Your task to perform on an android device: Go to notification settings Image 0: 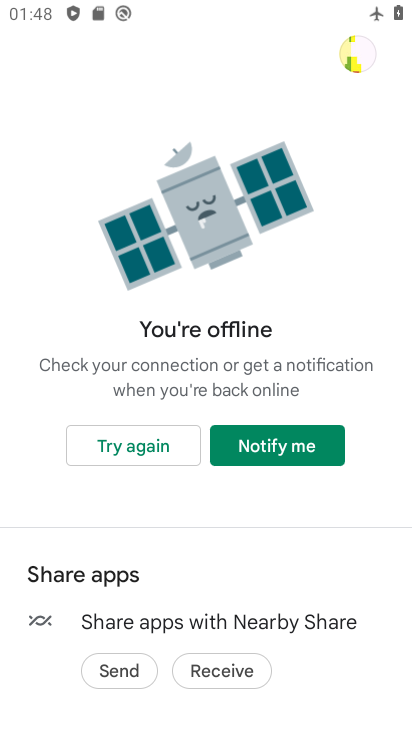
Step 0: press home button
Your task to perform on an android device: Go to notification settings Image 1: 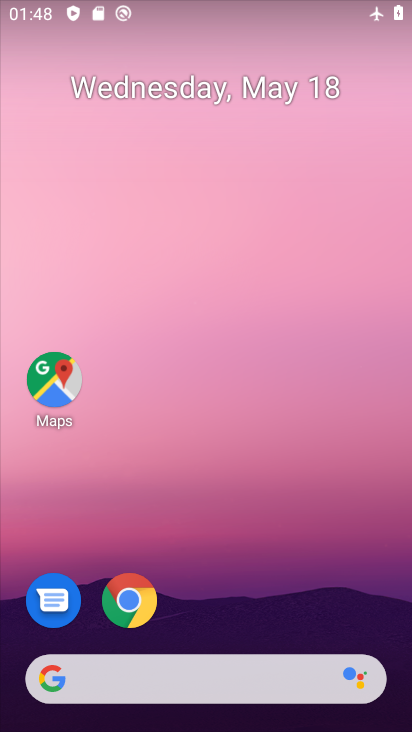
Step 1: drag from (173, 645) to (199, 124)
Your task to perform on an android device: Go to notification settings Image 2: 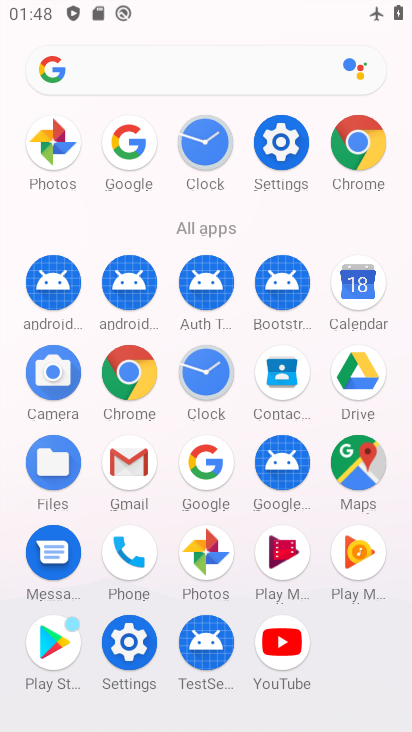
Step 2: click (266, 151)
Your task to perform on an android device: Go to notification settings Image 3: 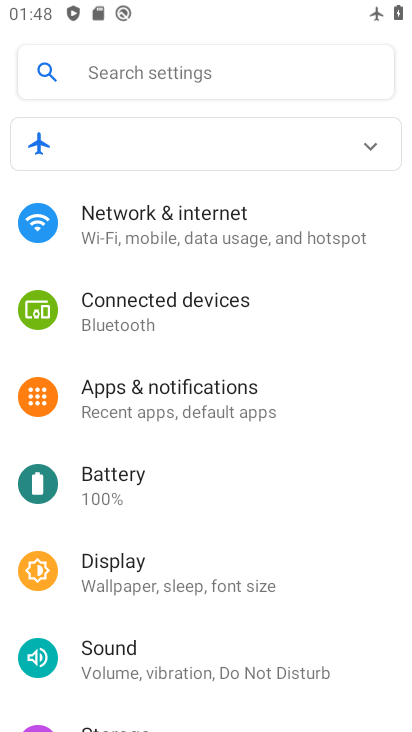
Step 3: click (161, 395)
Your task to perform on an android device: Go to notification settings Image 4: 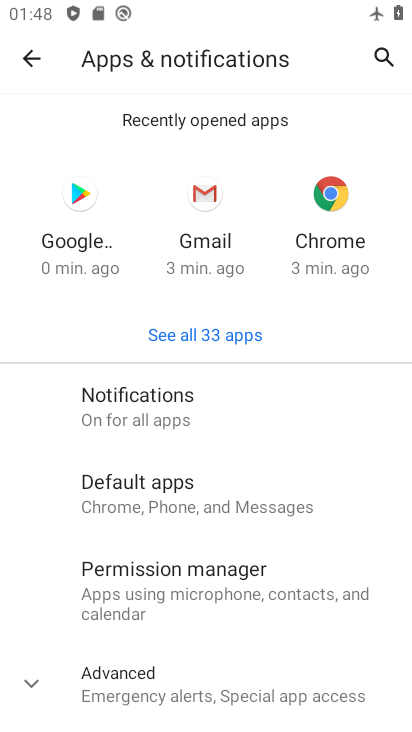
Step 4: click (157, 689)
Your task to perform on an android device: Go to notification settings Image 5: 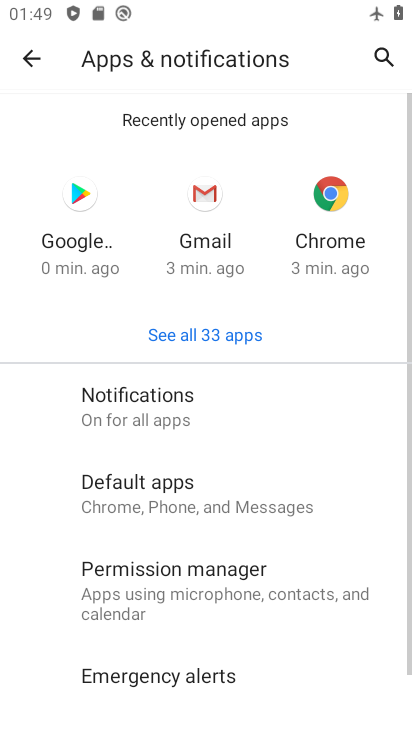
Step 5: task complete